Your task to perform on an android device: Open Youtube and go to the subscriptions tab Image 0: 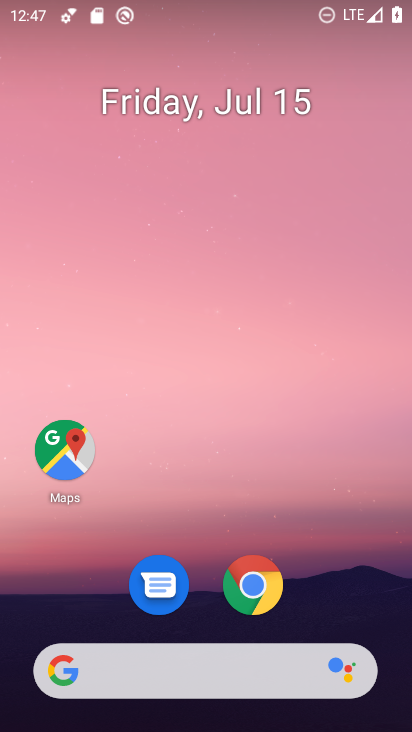
Step 0: drag from (318, 571) to (333, 10)
Your task to perform on an android device: Open Youtube and go to the subscriptions tab Image 1: 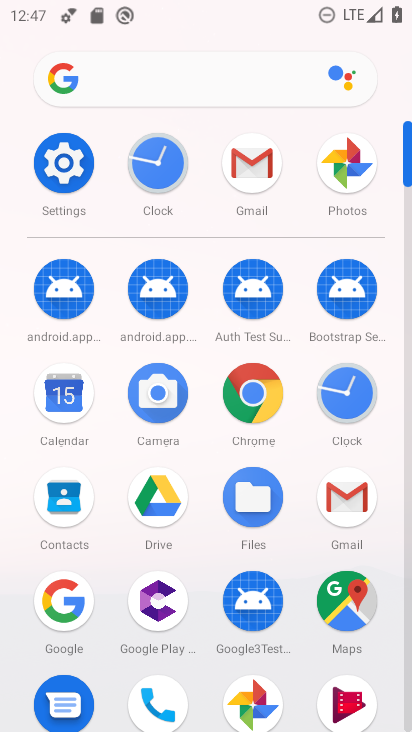
Step 1: drag from (300, 457) to (291, 157)
Your task to perform on an android device: Open Youtube and go to the subscriptions tab Image 2: 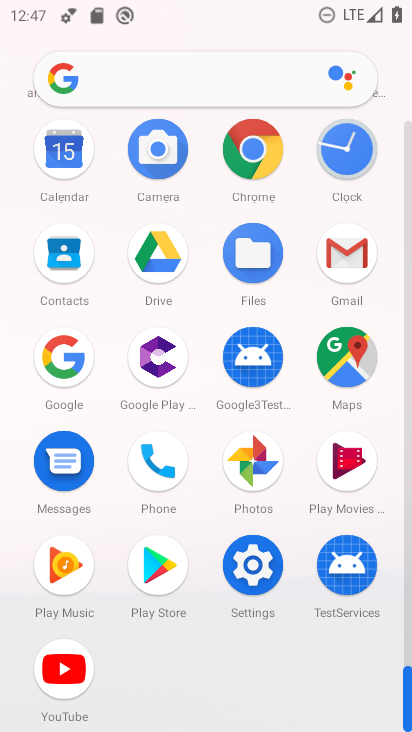
Step 2: click (72, 653)
Your task to perform on an android device: Open Youtube and go to the subscriptions tab Image 3: 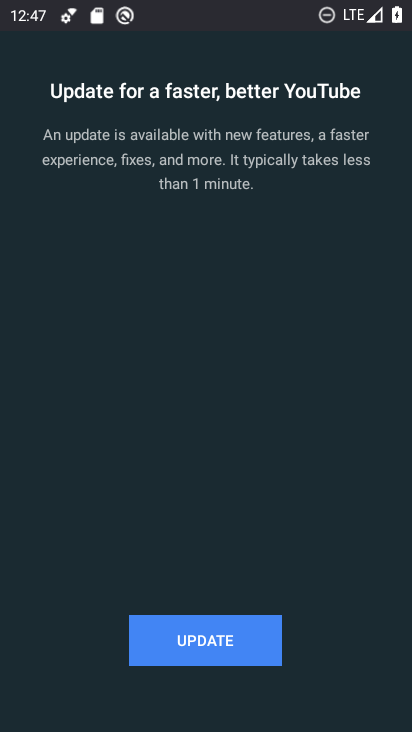
Step 3: click (257, 643)
Your task to perform on an android device: Open Youtube and go to the subscriptions tab Image 4: 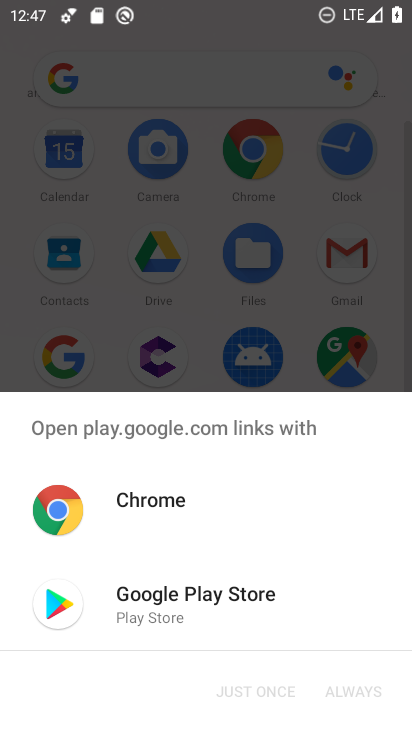
Step 4: click (208, 615)
Your task to perform on an android device: Open Youtube and go to the subscriptions tab Image 5: 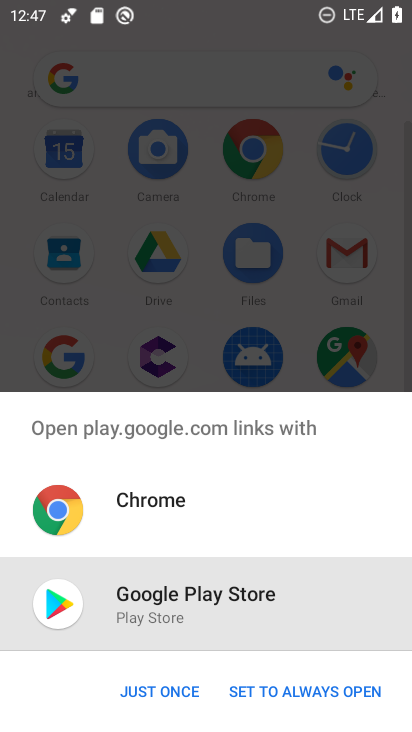
Step 5: click (143, 690)
Your task to perform on an android device: Open Youtube and go to the subscriptions tab Image 6: 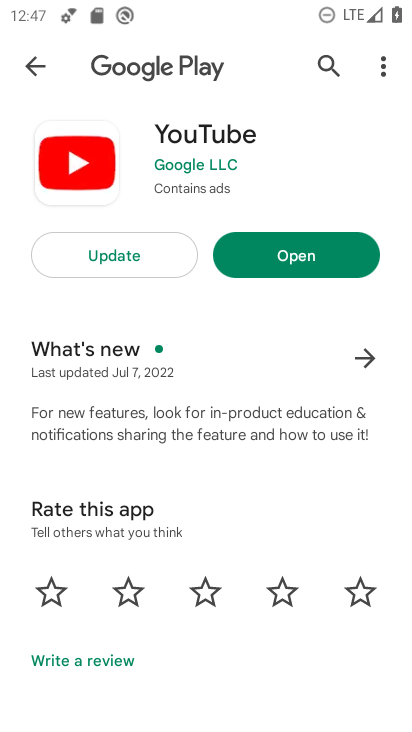
Step 6: click (157, 258)
Your task to perform on an android device: Open Youtube and go to the subscriptions tab Image 7: 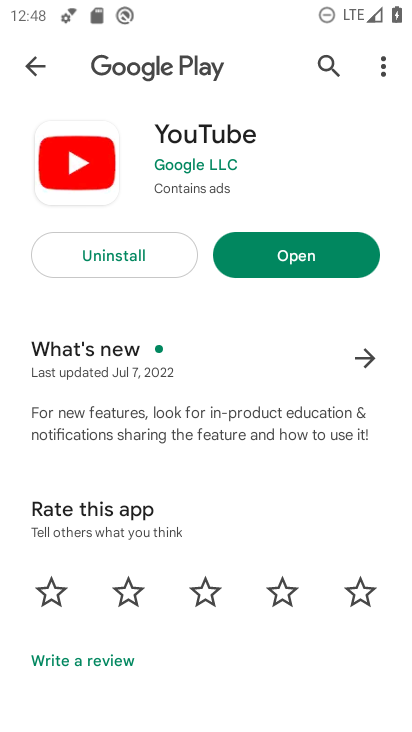
Step 7: click (271, 256)
Your task to perform on an android device: Open Youtube and go to the subscriptions tab Image 8: 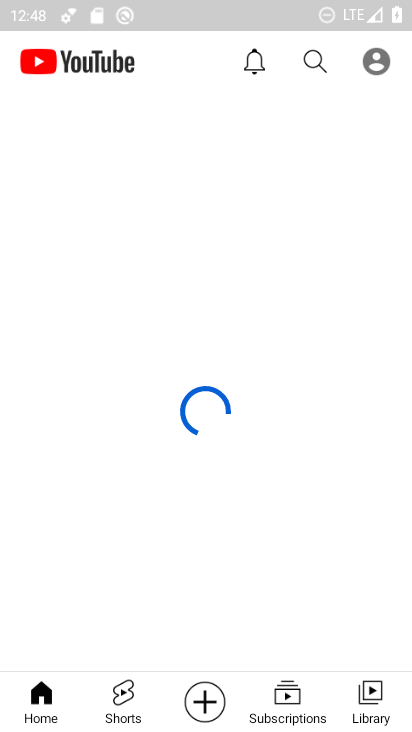
Step 8: click (263, 703)
Your task to perform on an android device: Open Youtube and go to the subscriptions tab Image 9: 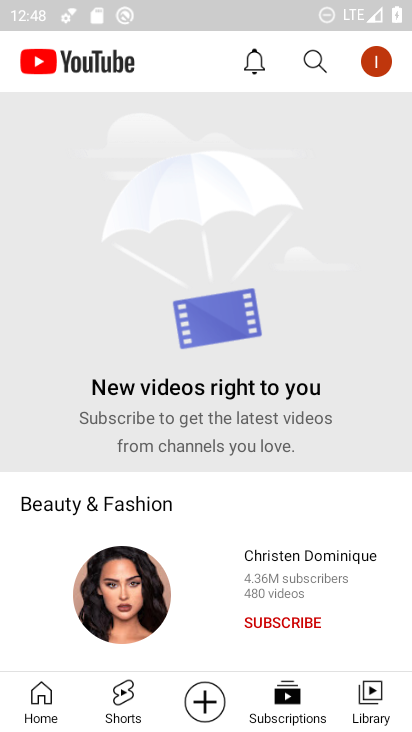
Step 9: click (290, 697)
Your task to perform on an android device: Open Youtube and go to the subscriptions tab Image 10: 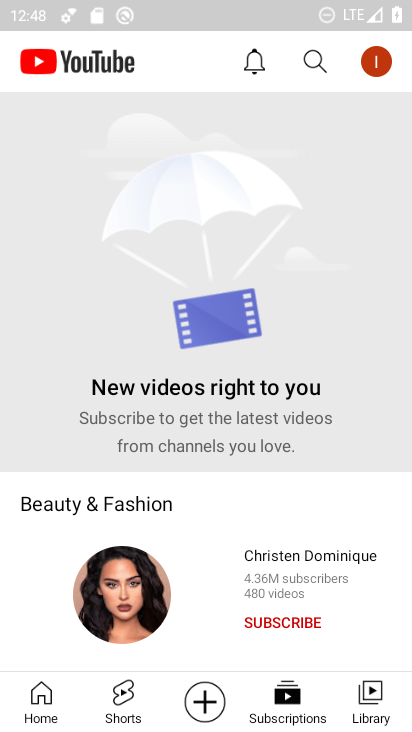
Step 10: task complete